Your task to perform on an android device: turn off location Image 0: 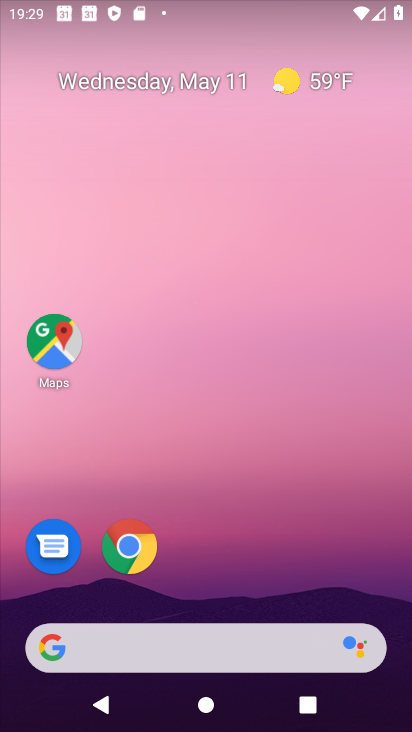
Step 0: drag from (319, 551) to (301, 133)
Your task to perform on an android device: turn off location Image 1: 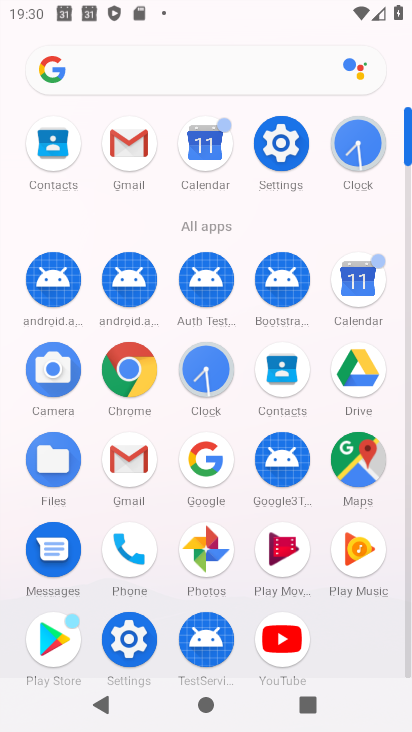
Step 1: click (281, 162)
Your task to perform on an android device: turn off location Image 2: 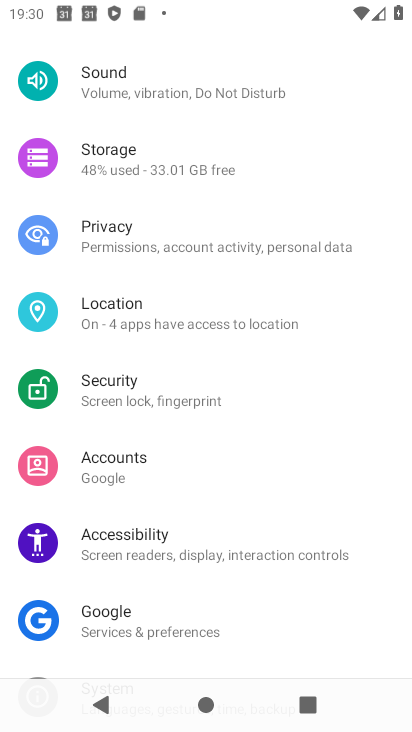
Step 2: click (132, 305)
Your task to perform on an android device: turn off location Image 3: 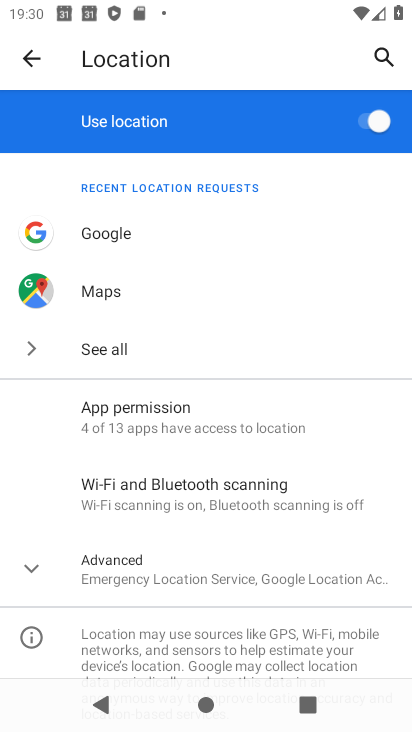
Step 3: click (373, 119)
Your task to perform on an android device: turn off location Image 4: 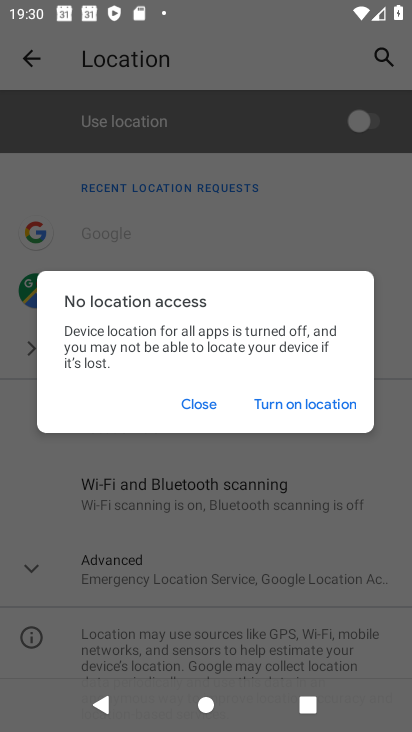
Step 4: click (203, 400)
Your task to perform on an android device: turn off location Image 5: 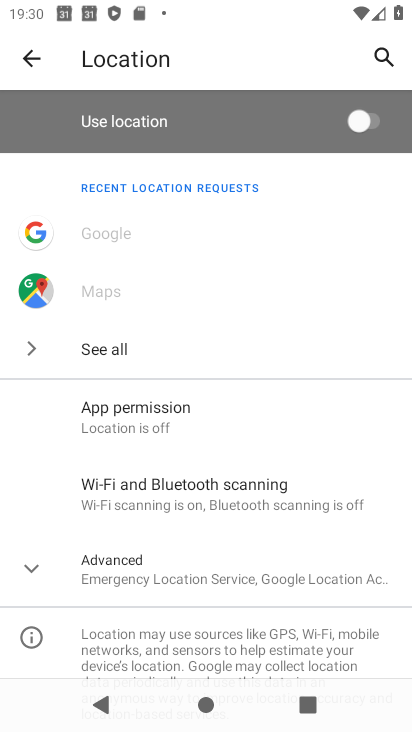
Step 5: task complete